Your task to perform on an android device: find which apps use the phone's location Image 0: 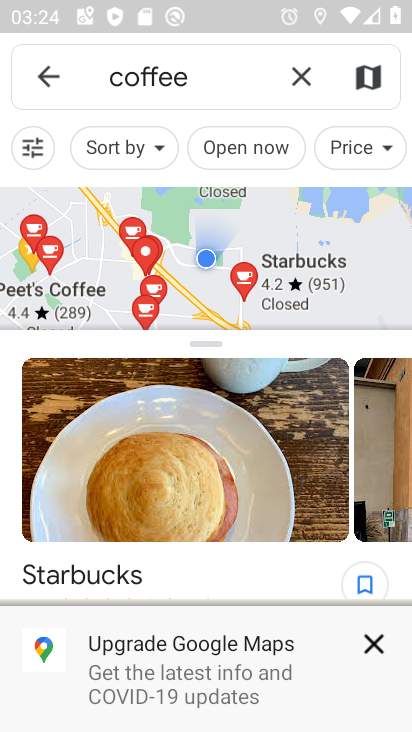
Step 0: press home button
Your task to perform on an android device: find which apps use the phone's location Image 1: 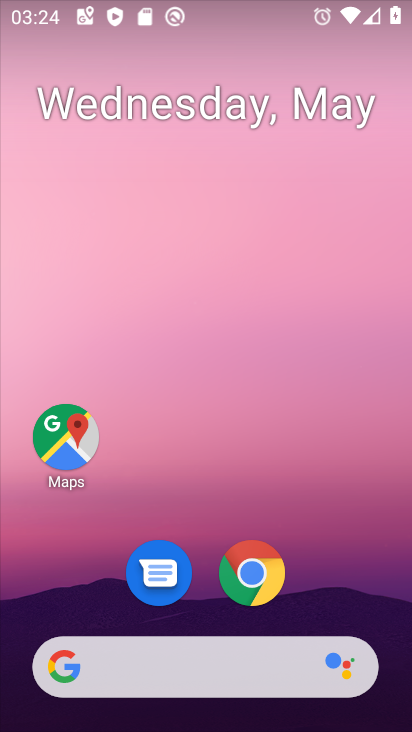
Step 1: drag from (189, 719) to (192, 194)
Your task to perform on an android device: find which apps use the phone's location Image 2: 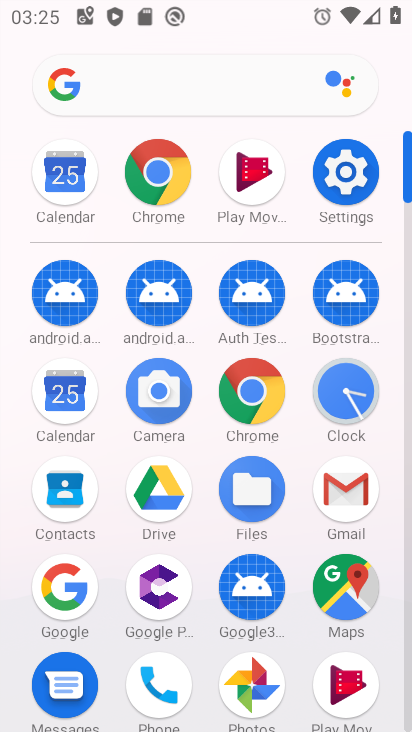
Step 2: click (338, 178)
Your task to perform on an android device: find which apps use the phone's location Image 3: 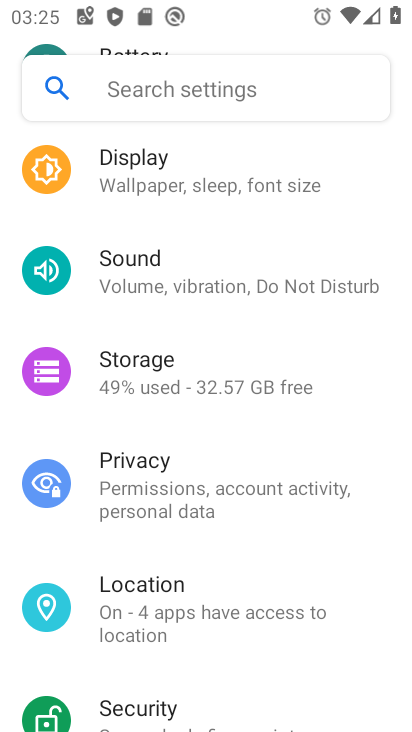
Step 3: click (149, 591)
Your task to perform on an android device: find which apps use the phone's location Image 4: 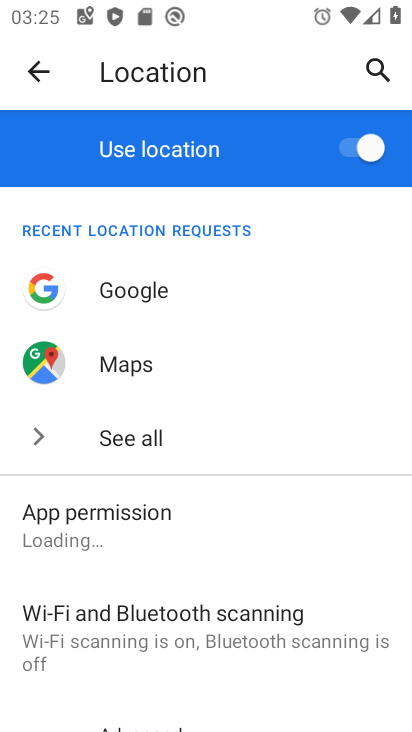
Step 4: click (92, 519)
Your task to perform on an android device: find which apps use the phone's location Image 5: 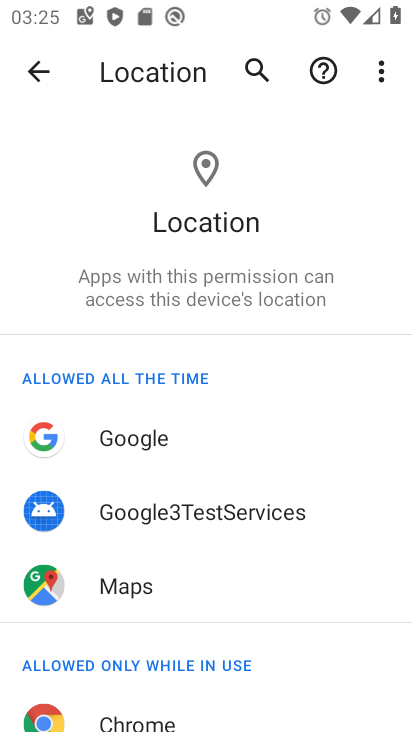
Step 5: task complete